Your task to perform on an android device: show emergency info Image 0: 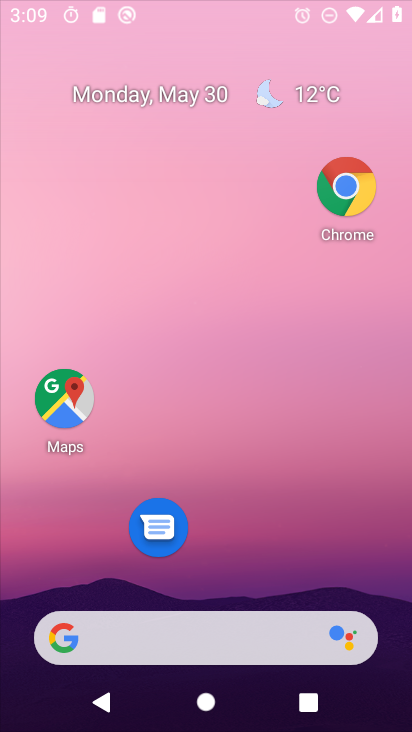
Step 0: drag from (248, 399) to (301, 39)
Your task to perform on an android device: show emergency info Image 1: 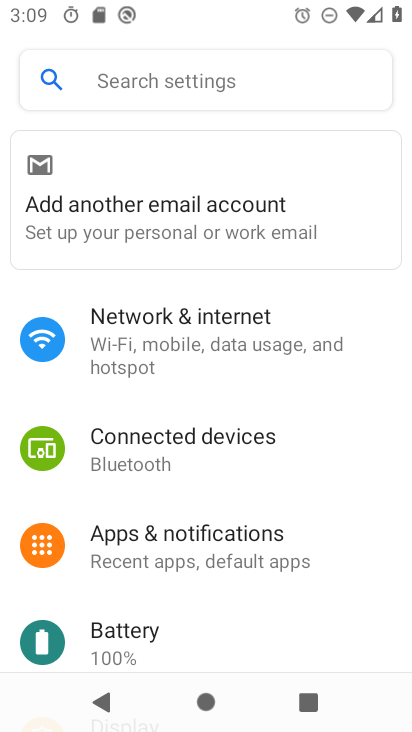
Step 1: drag from (184, 518) to (159, 3)
Your task to perform on an android device: show emergency info Image 2: 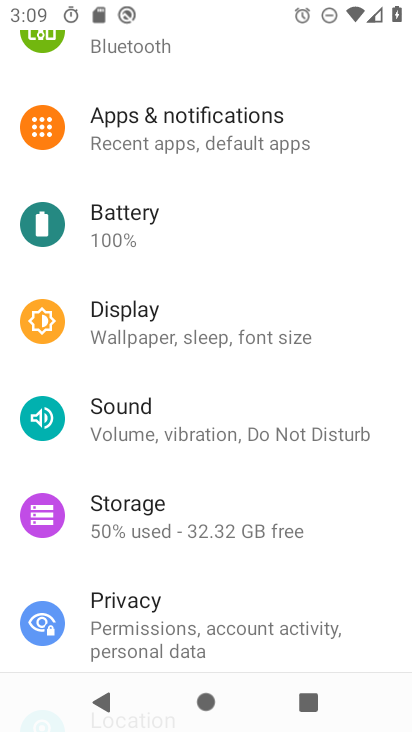
Step 2: drag from (200, 605) to (305, 96)
Your task to perform on an android device: show emergency info Image 3: 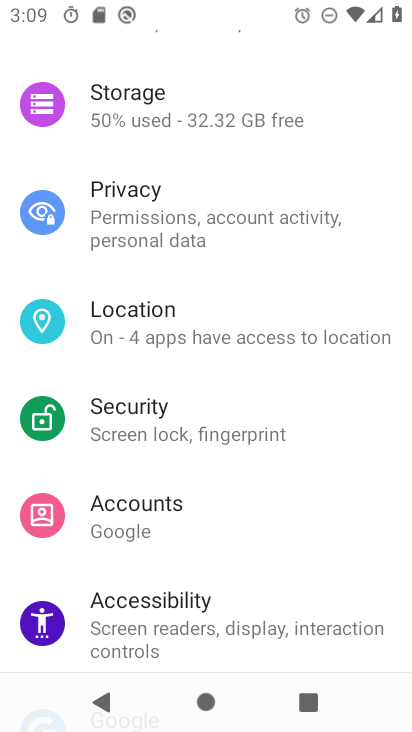
Step 3: drag from (176, 460) to (222, 144)
Your task to perform on an android device: show emergency info Image 4: 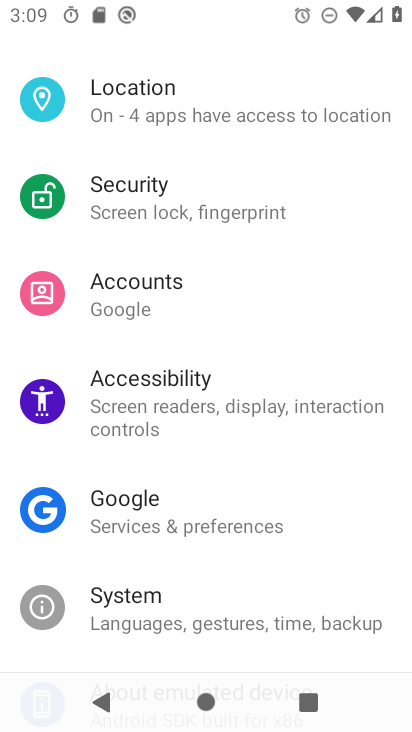
Step 4: drag from (179, 456) to (226, 168)
Your task to perform on an android device: show emergency info Image 5: 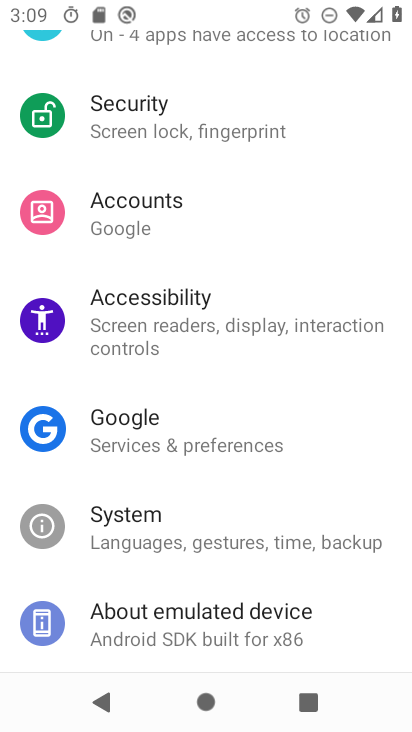
Step 5: drag from (196, 627) to (256, 114)
Your task to perform on an android device: show emergency info Image 6: 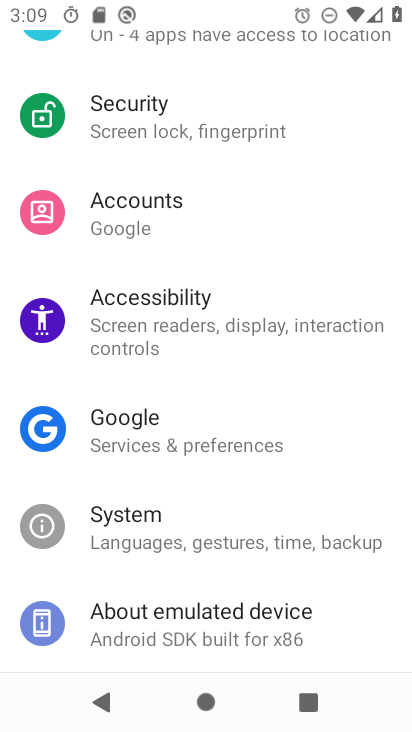
Step 6: click (191, 611)
Your task to perform on an android device: show emergency info Image 7: 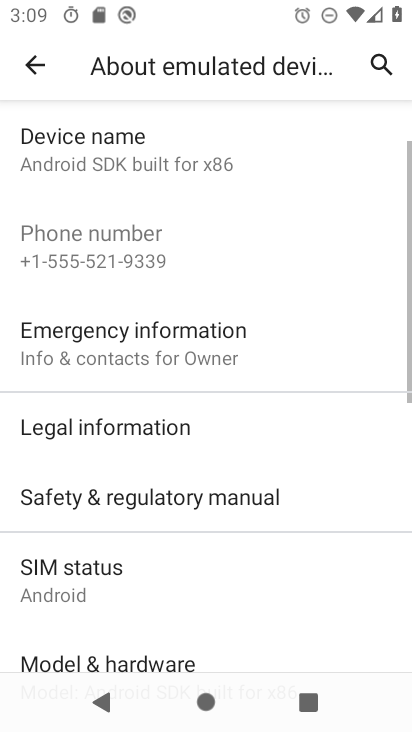
Step 7: click (212, 325)
Your task to perform on an android device: show emergency info Image 8: 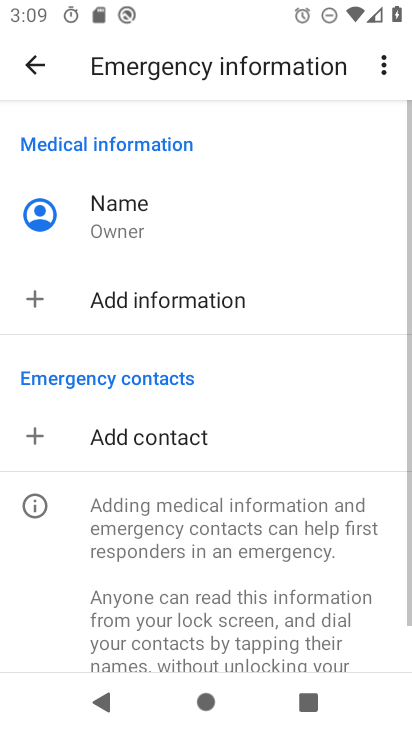
Step 8: task complete